Your task to perform on an android device: manage bookmarks in the chrome app Image 0: 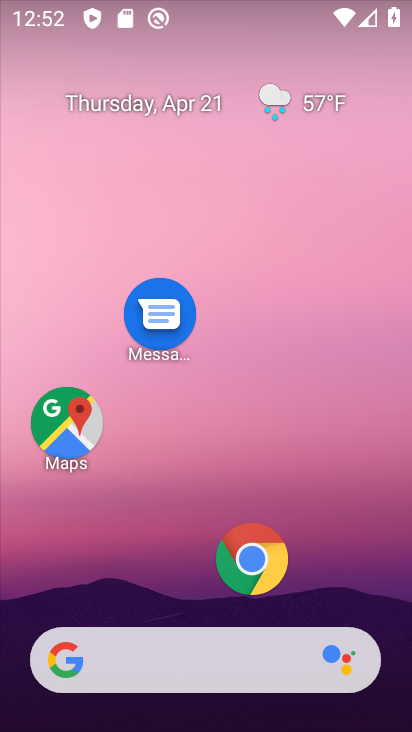
Step 0: click (257, 564)
Your task to perform on an android device: manage bookmarks in the chrome app Image 1: 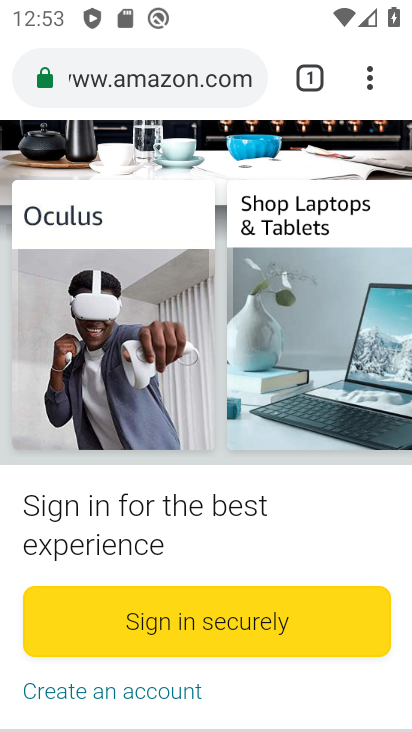
Step 1: click (369, 75)
Your task to perform on an android device: manage bookmarks in the chrome app Image 2: 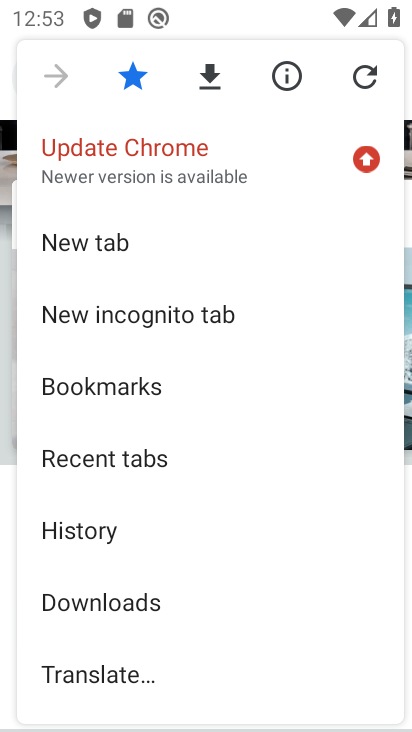
Step 2: click (109, 385)
Your task to perform on an android device: manage bookmarks in the chrome app Image 3: 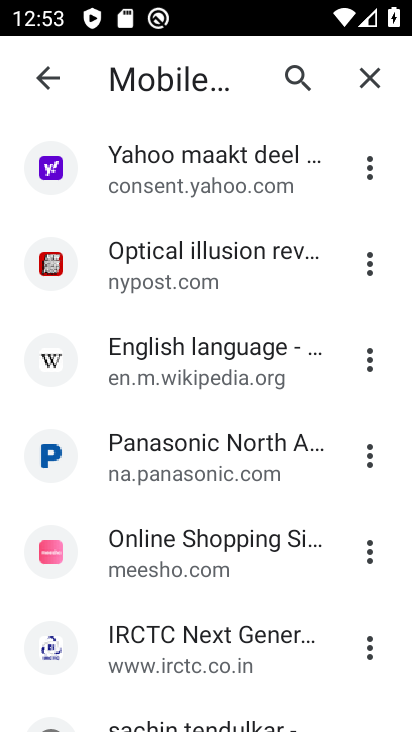
Step 3: drag from (202, 683) to (243, 270)
Your task to perform on an android device: manage bookmarks in the chrome app Image 4: 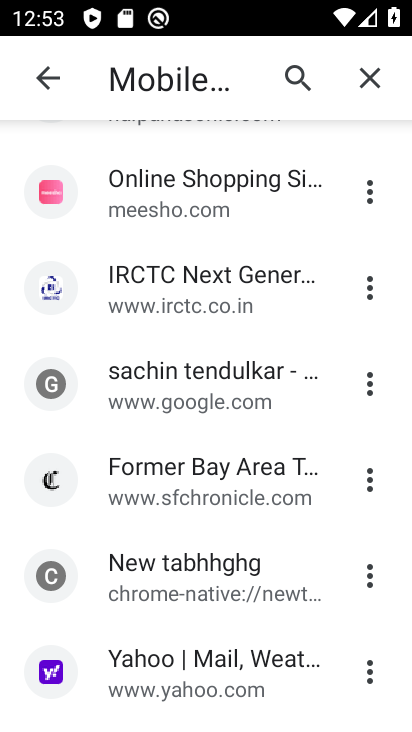
Step 4: drag from (241, 711) to (259, 331)
Your task to perform on an android device: manage bookmarks in the chrome app Image 5: 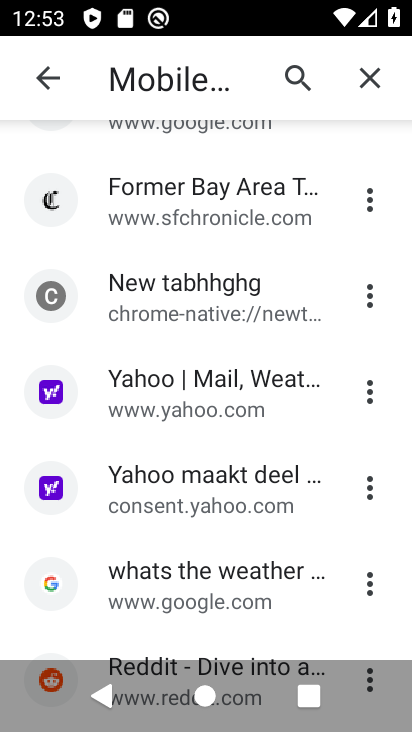
Step 5: drag from (223, 638) to (234, 303)
Your task to perform on an android device: manage bookmarks in the chrome app Image 6: 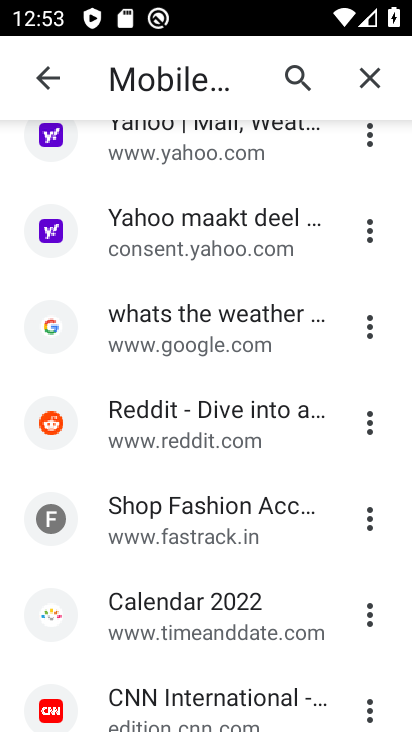
Step 6: drag from (180, 683) to (213, 258)
Your task to perform on an android device: manage bookmarks in the chrome app Image 7: 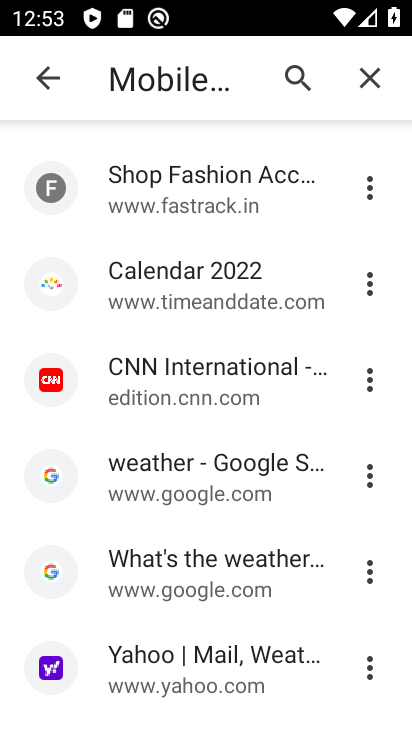
Step 7: drag from (199, 703) to (249, 357)
Your task to perform on an android device: manage bookmarks in the chrome app Image 8: 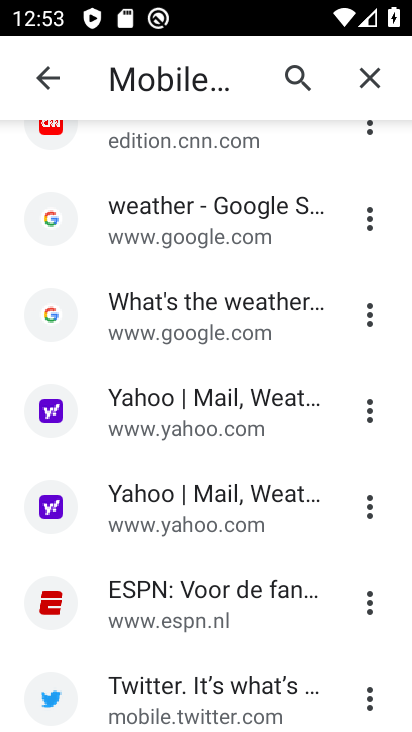
Step 8: drag from (196, 701) to (242, 369)
Your task to perform on an android device: manage bookmarks in the chrome app Image 9: 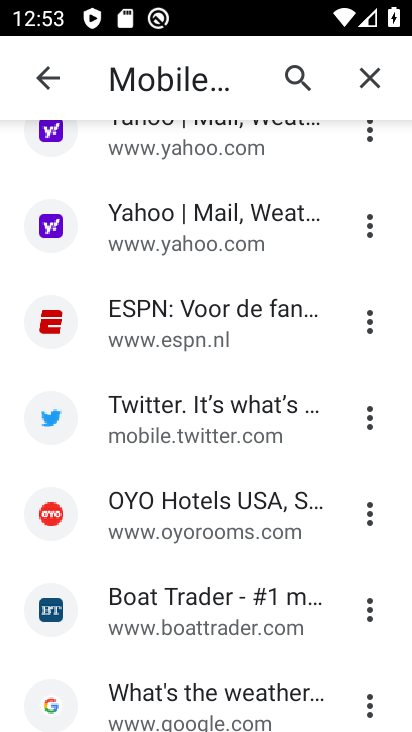
Step 9: click (193, 229)
Your task to perform on an android device: manage bookmarks in the chrome app Image 10: 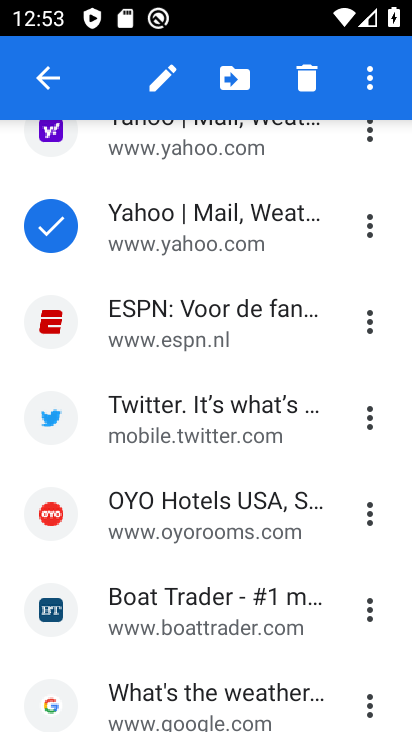
Step 10: click (304, 75)
Your task to perform on an android device: manage bookmarks in the chrome app Image 11: 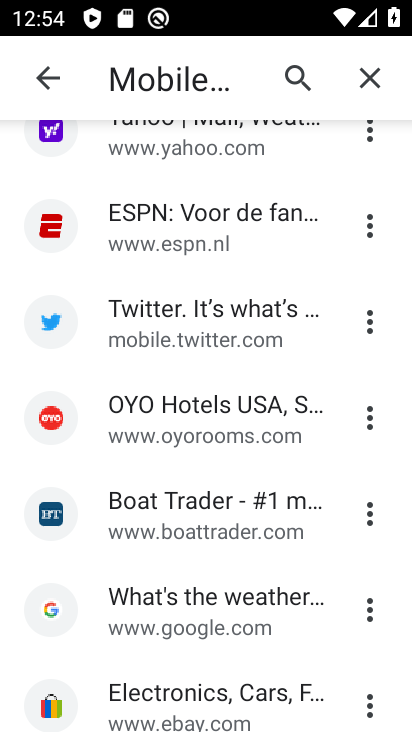
Step 11: task complete